Your task to perform on an android device: Do I have any events this weekend? Image 0: 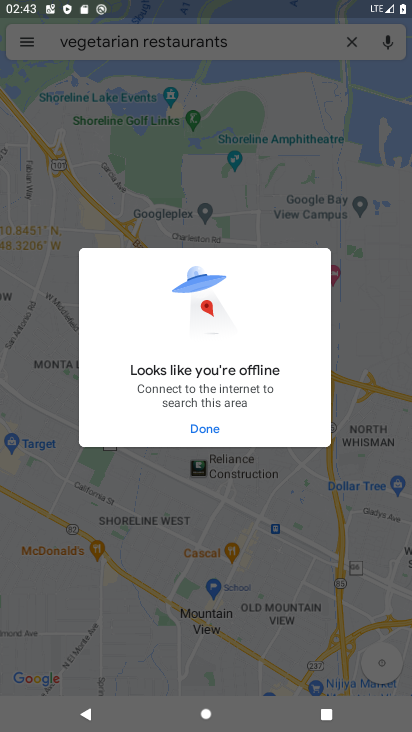
Step 0: press home button
Your task to perform on an android device: Do I have any events this weekend? Image 1: 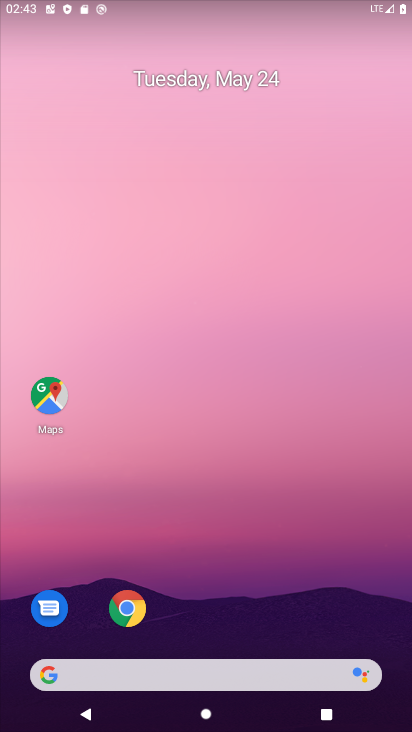
Step 1: drag from (201, 594) to (165, 412)
Your task to perform on an android device: Do I have any events this weekend? Image 2: 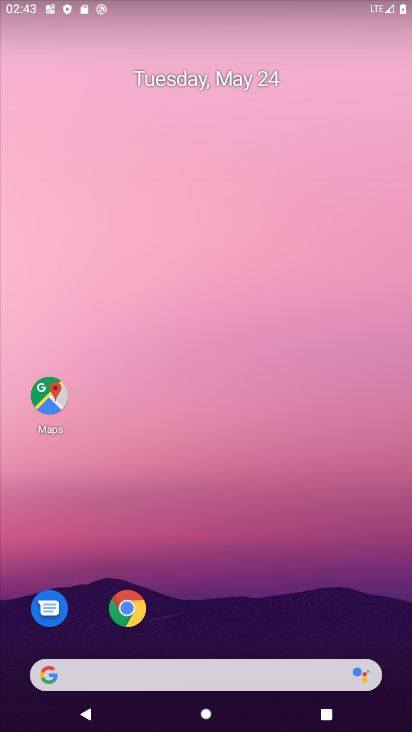
Step 2: drag from (218, 617) to (182, 181)
Your task to perform on an android device: Do I have any events this weekend? Image 3: 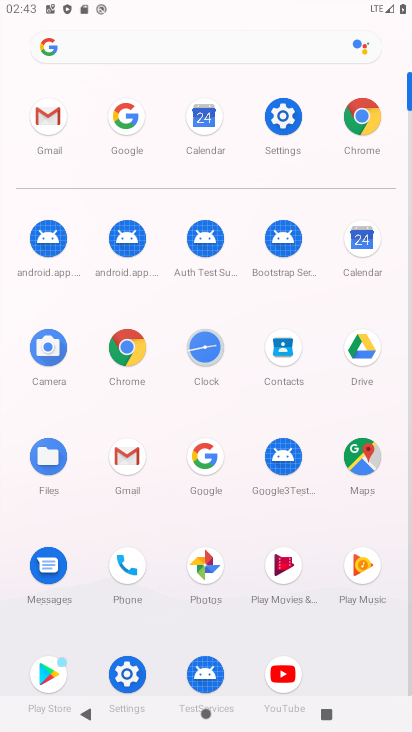
Step 3: click (364, 240)
Your task to perform on an android device: Do I have any events this weekend? Image 4: 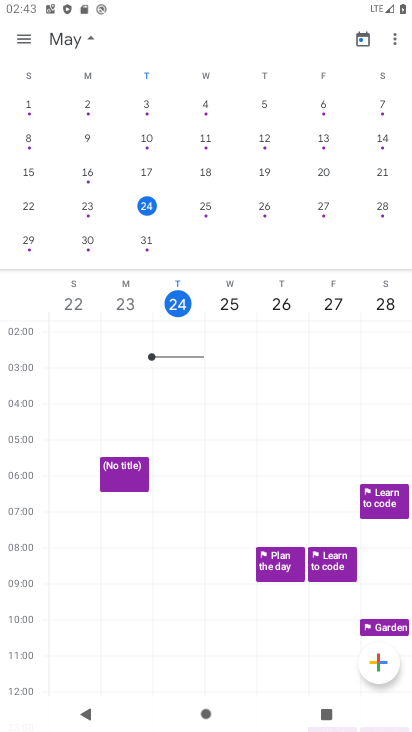
Step 4: click (19, 37)
Your task to perform on an android device: Do I have any events this weekend? Image 5: 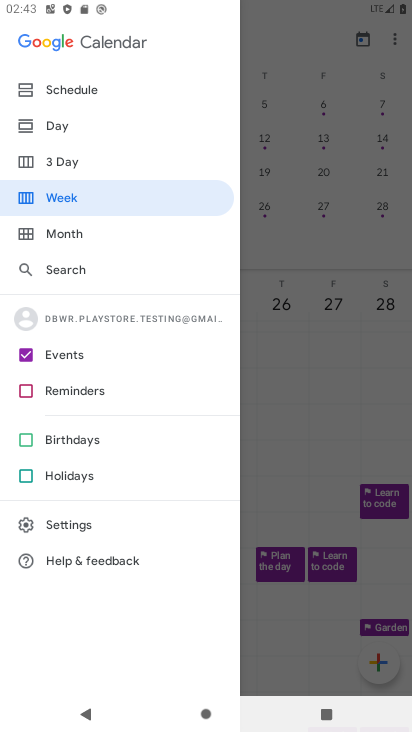
Step 5: click (88, 163)
Your task to perform on an android device: Do I have any events this weekend? Image 6: 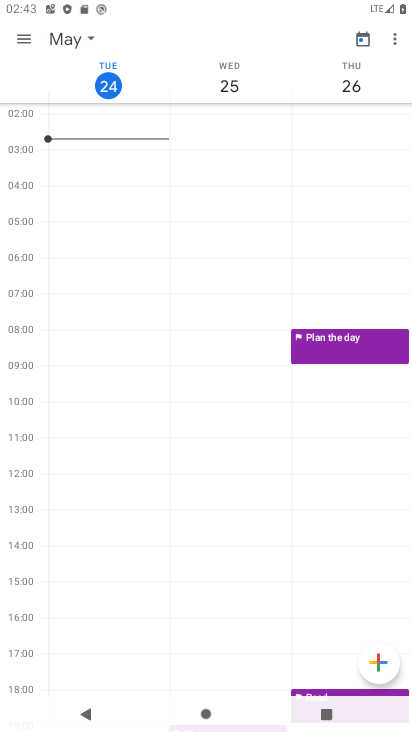
Step 6: click (95, 42)
Your task to perform on an android device: Do I have any events this weekend? Image 7: 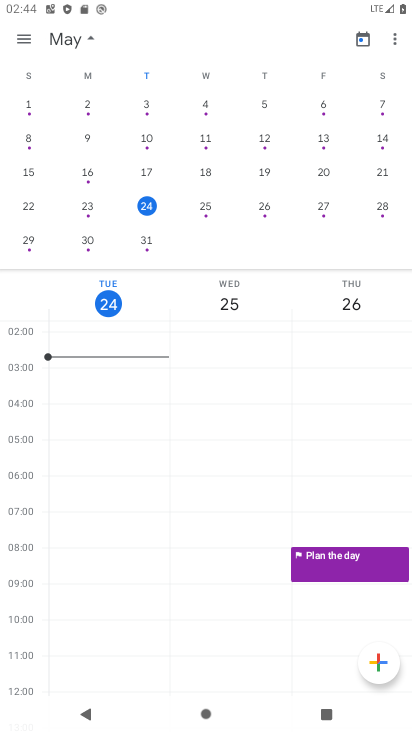
Step 7: click (380, 201)
Your task to perform on an android device: Do I have any events this weekend? Image 8: 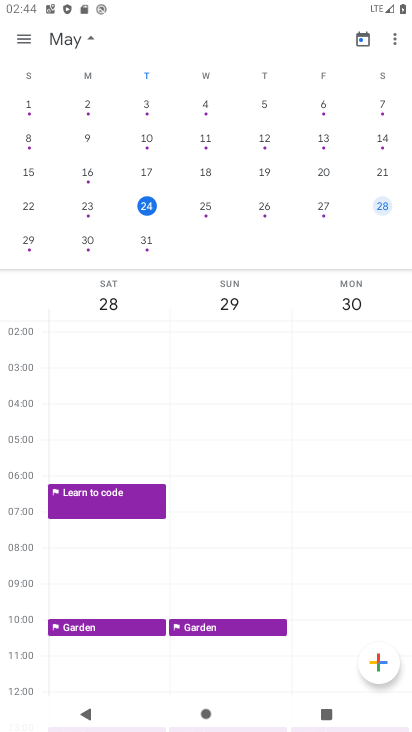
Step 8: task complete